Your task to perform on an android device: turn on wifi Image 0: 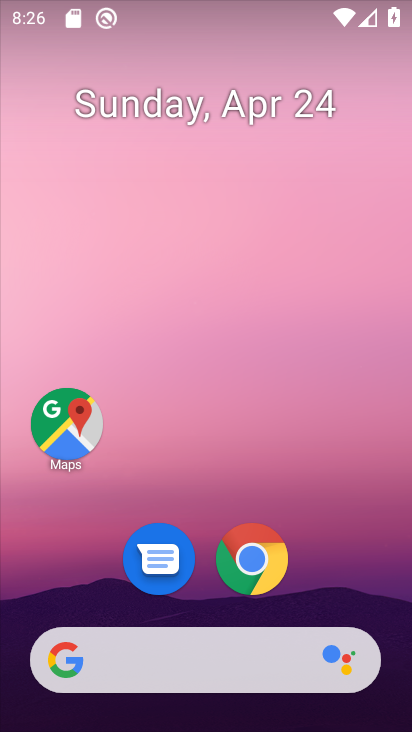
Step 0: drag from (347, 599) to (327, 152)
Your task to perform on an android device: turn on wifi Image 1: 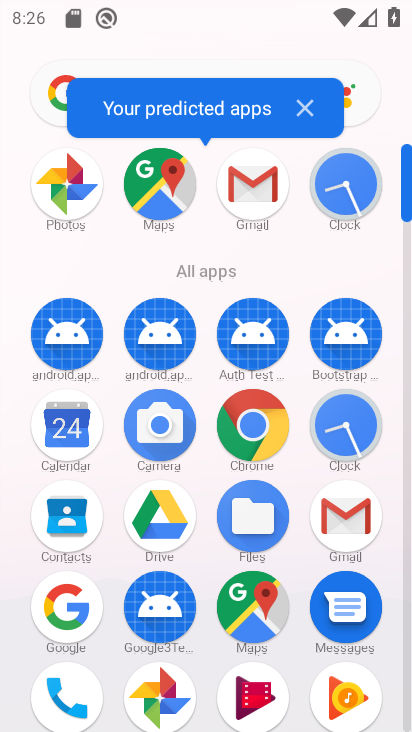
Step 1: click (410, 646)
Your task to perform on an android device: turn on wifi Image 2: 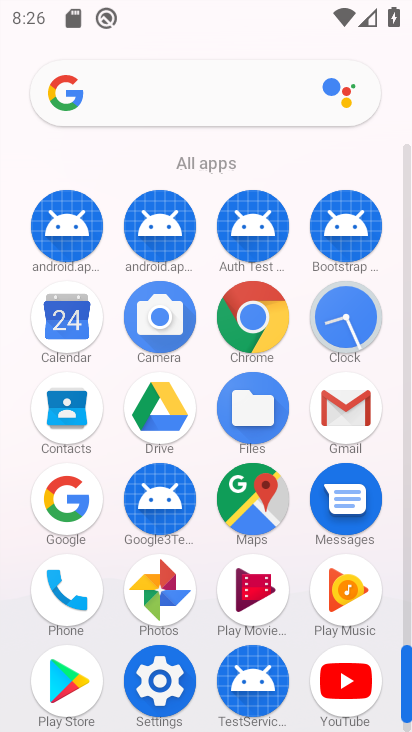
Step 2: click (166, 676)
Your task to perform on an android device: turn on wifi Image 3: 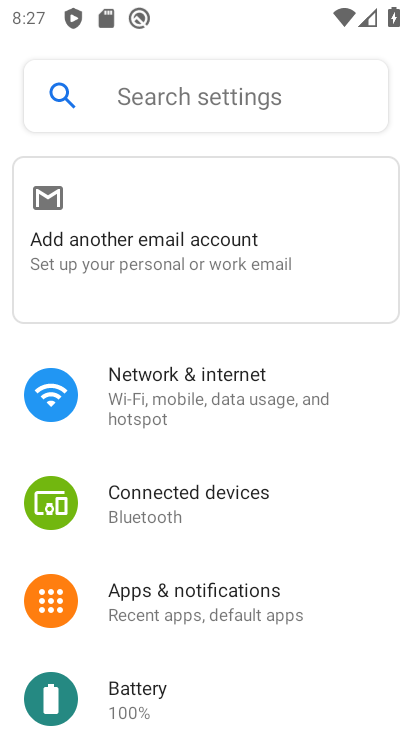
Step 3: click (237, 416)
Your task to perform on an android device: turn on wifi Image 4: 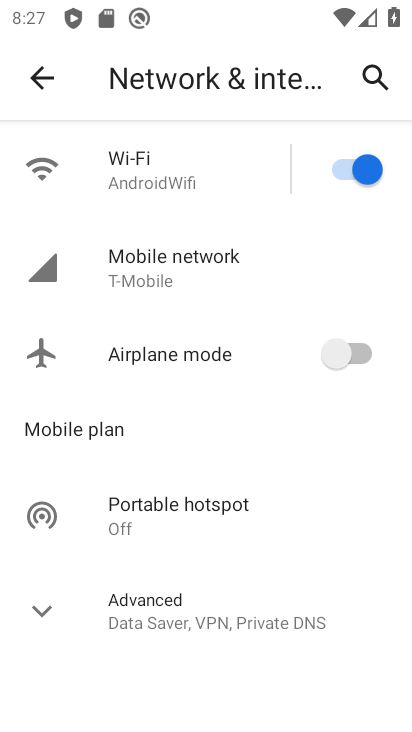
Step 4: task complete